Your task to perform on an android device: Show me recent news Image 0: 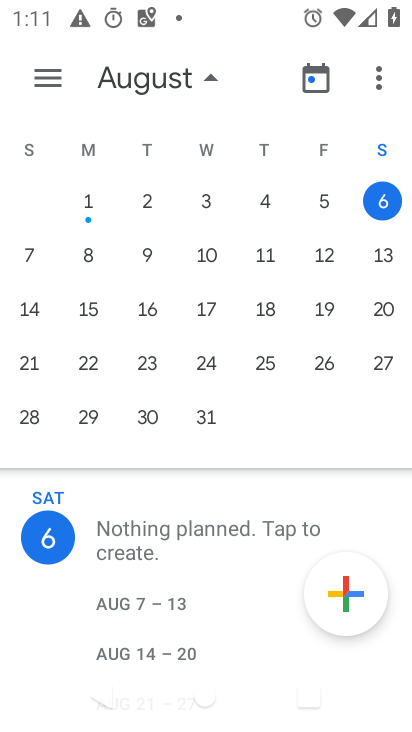
Step 0: press back button
Your task to perform on an android device: Show me recent news Image 1: 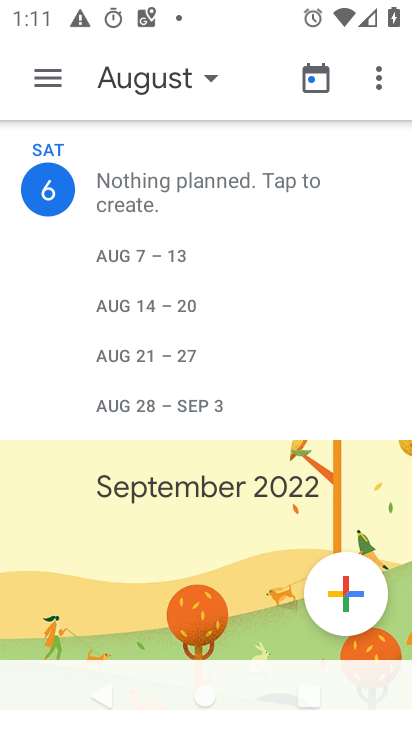
Step 1: press back button
Your task to perform on an android device: Show me recent news Image 2: 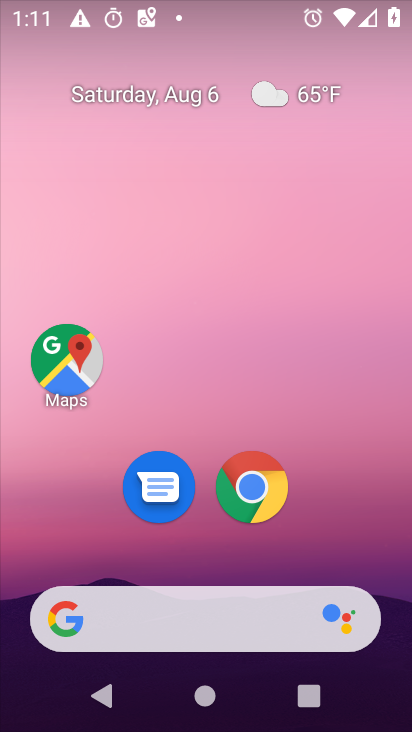
Step 2: click (230, 615)
Your task to perform on an android device: Show me recent news Image 3: 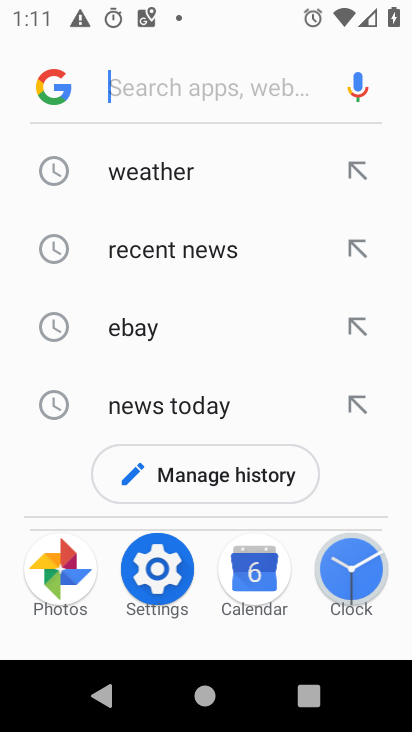
Step 3: click (158, 238)
Your task to perform on an android device: Show me recent news Image 4: 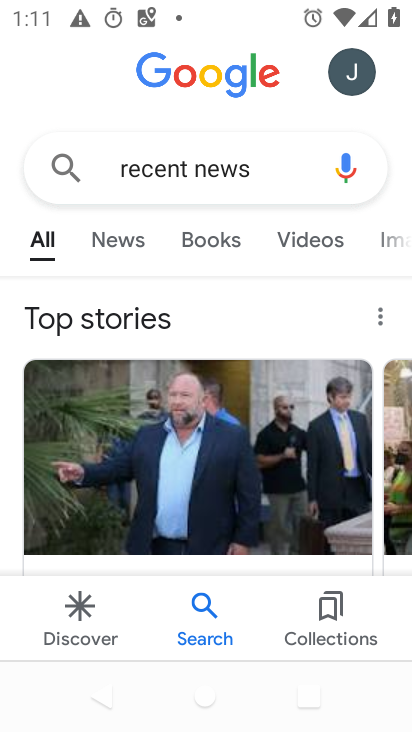
Step 4: task complete